Your task to perform on an android device: Open the calendar app, open the side menu, and click the "Day" option Image 0: 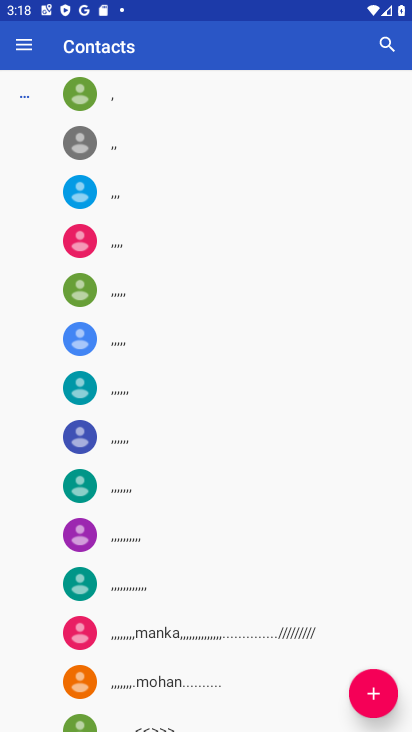
Step 0: press back button
Your task to perform on an android device: Open the calendar app, open the side menu, and click the "Day" option Image 1: 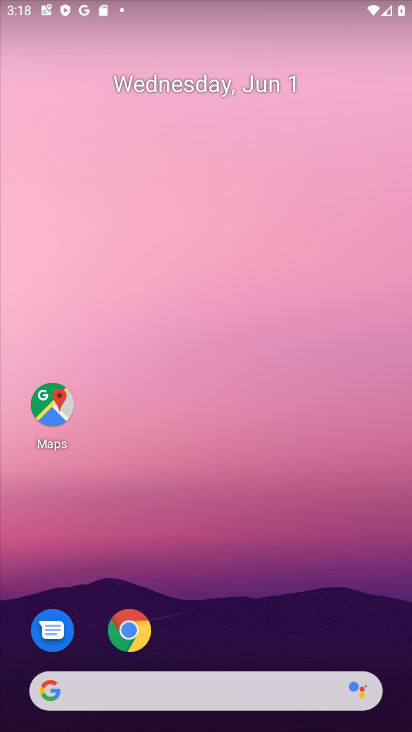
Step 1: drag from (282, 635) to (263, 64)
Your task to perform on an android device: Open the calendar app, open the side menu, and click the "Day" option Image 2: 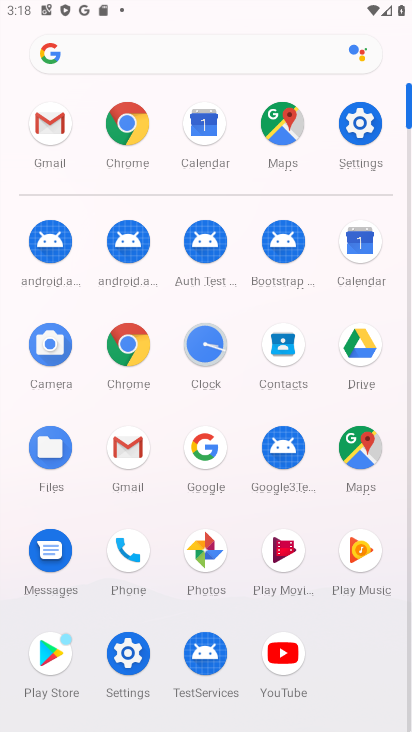
Step 2: click (359, 249)
Your task to perform on an android device: Open the calendar app, open the side menu, and click the "Day" option Image 3: 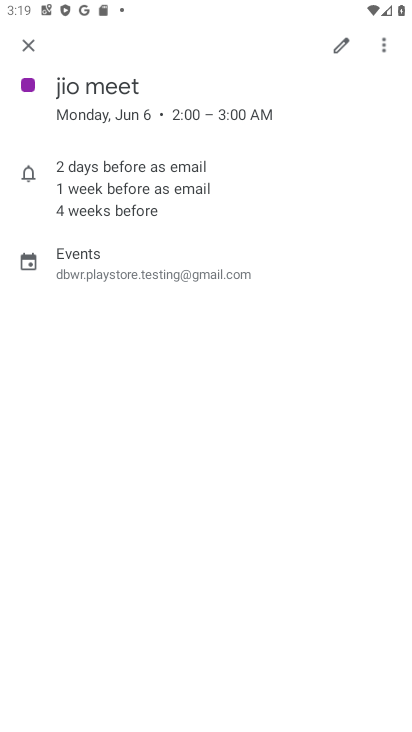
Step 3: click (29, 39)
Your task to perform on an android device: Open the calendar app, open the side menu, and click the "Day" option Image 4: 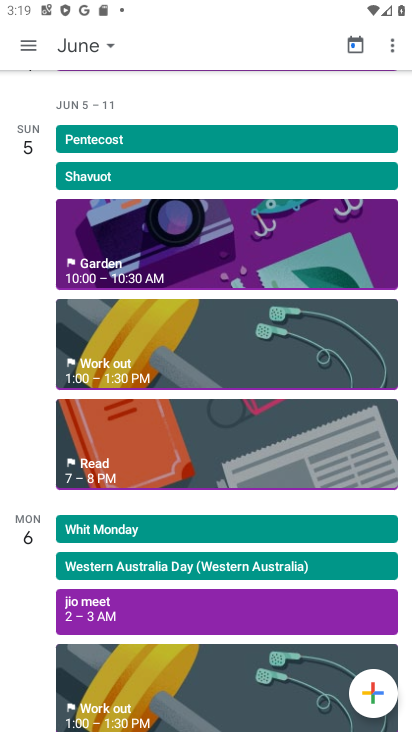
Step 4: click (21, 38)
Your task to perform on an android device: Open the calendar app, open the side menu, and click the "Day" option Image 5: 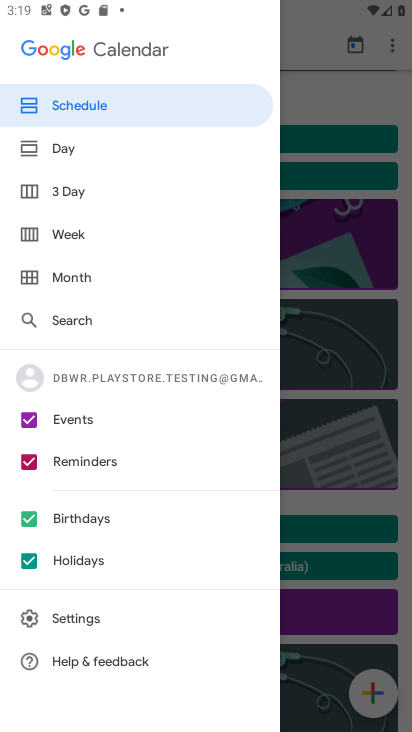
Step 5: click (71, 145)
Your task to perform on an android device: Open the calendar app, open the side menu, and click the "Day" option Image 6: 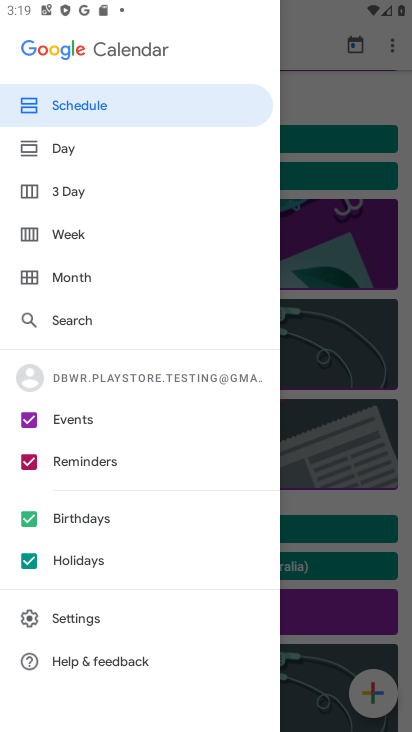
Step 6: click (78, 144)
Your task to perform on an android device: Open the calendar app, open the side menu, and click the "Day" option Image 7: 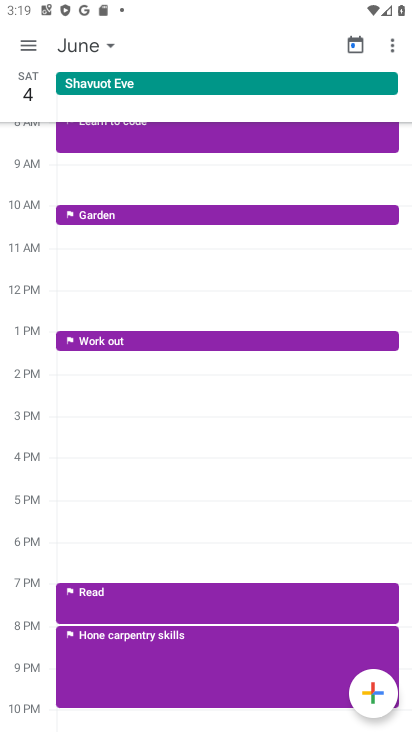
Step 7: click (21, 36)
Your task to perform on an android device: Open the calendar app, open the side menu, and click the "Day" option Image 8: 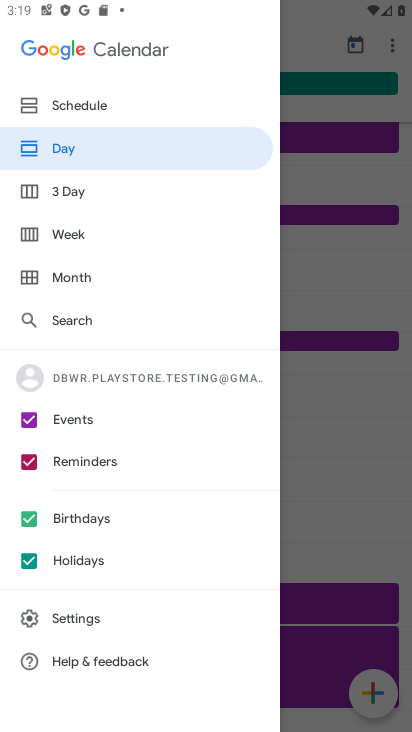
Step 8: click (110, 154)
Your task to perform on an android device: Open the calendar app, open the side menu, and click the "Day" option Image 9: 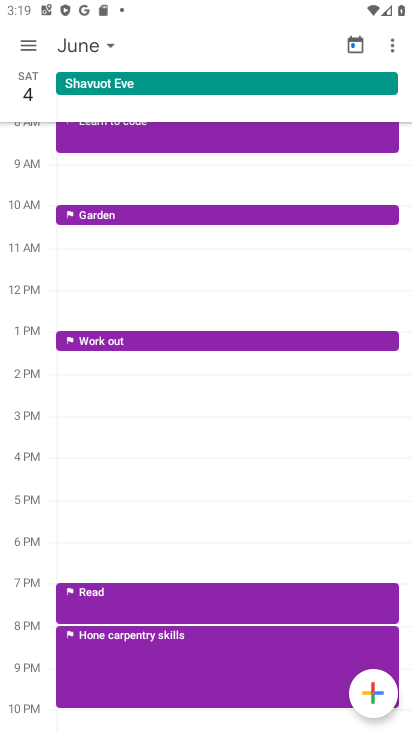
Step 9: task complete